Your task to perform on an android device: turn off translation in the chrome app Image 0: 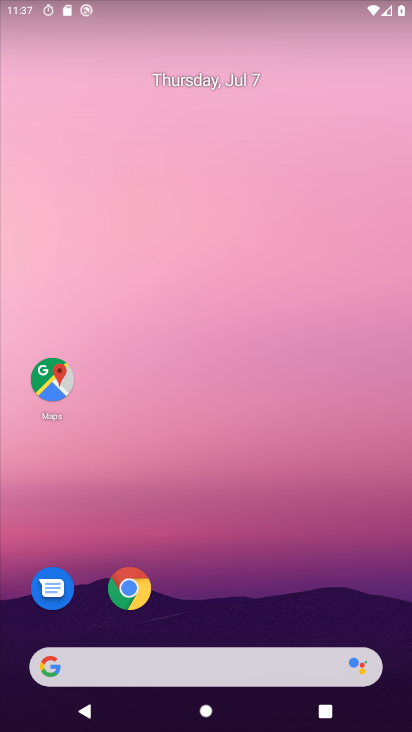
Step 0: click (139, 585)
Your task to perform on an android device: turn off translation in the chrome app Image 1: 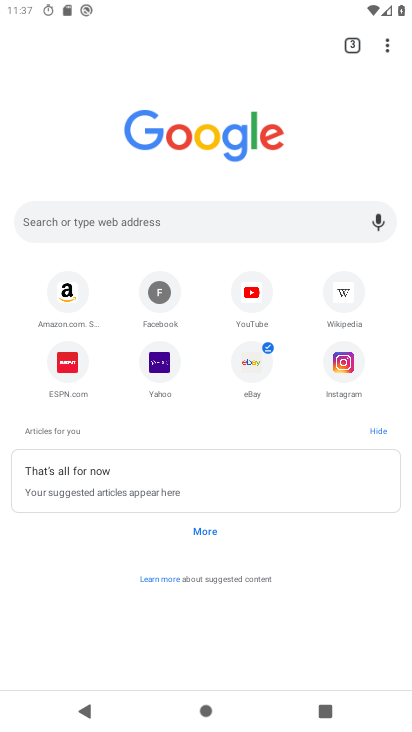
Step 1: drag from (385, 45) to (262, 374)
Your task to perform on an android device: turn off translation in the chrome app Image 2: 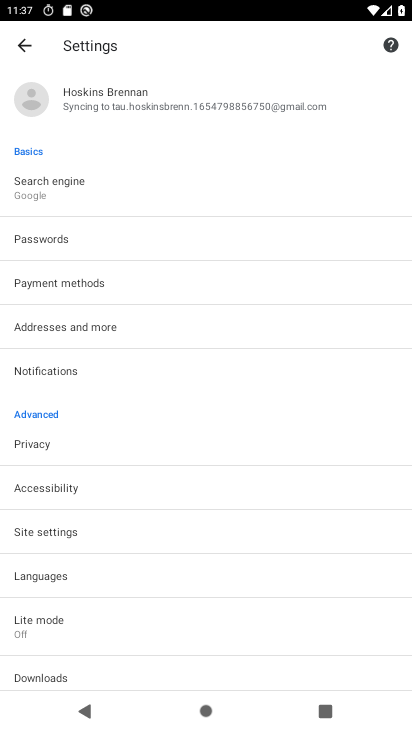
Step 2: click (89, 572)
Your task to perform on an android device: turn off translation in the chrome app Image 3: 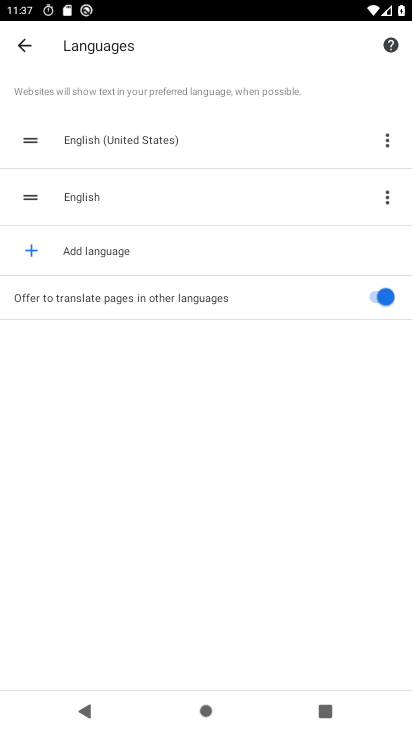
Step 3: click (375, 295)
Your task to perform on an android device: turn off translation in the chrome app Image 4: 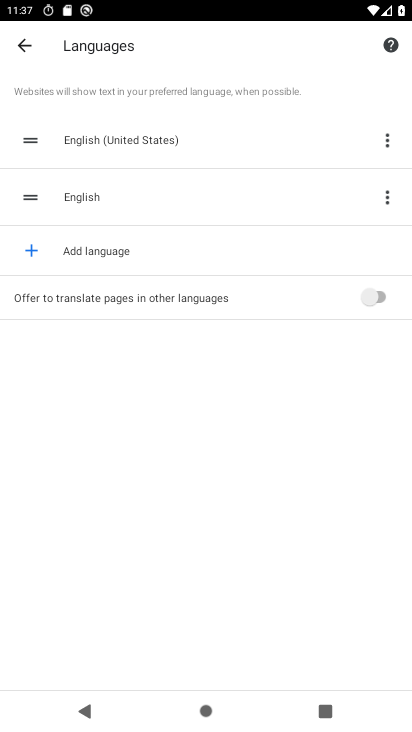
Step 4: task complete